Your task to perform on an android device: delete location history Image 0: 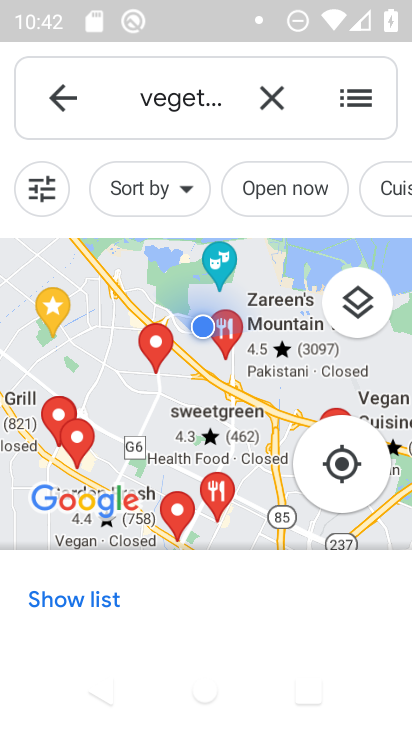
Step 0: press home button
Your task to perform on an android device: delete location history Image 1: 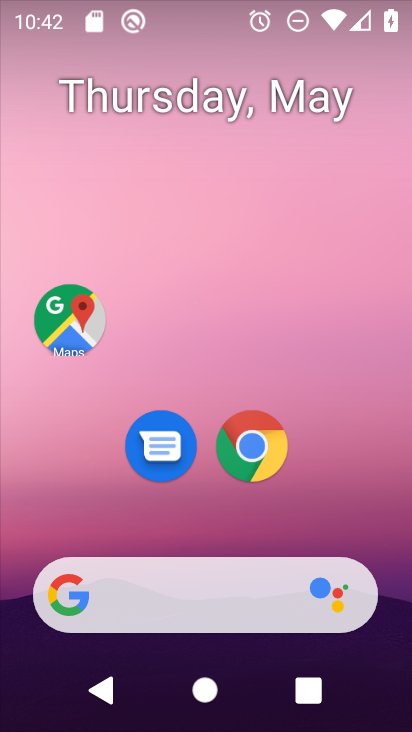
Step 1: drag from (271, 643) to (310, 162)
Your task to perform on an android device: delete location history Image 2: 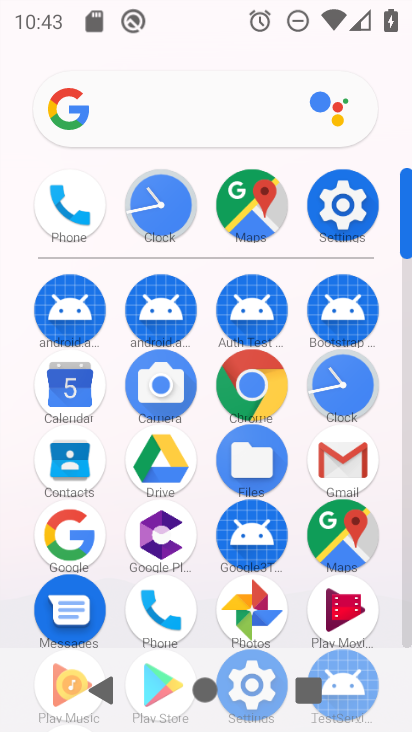
Step 2: click (351, 206)
Your task to perform on an android device: delete location history Image 3: 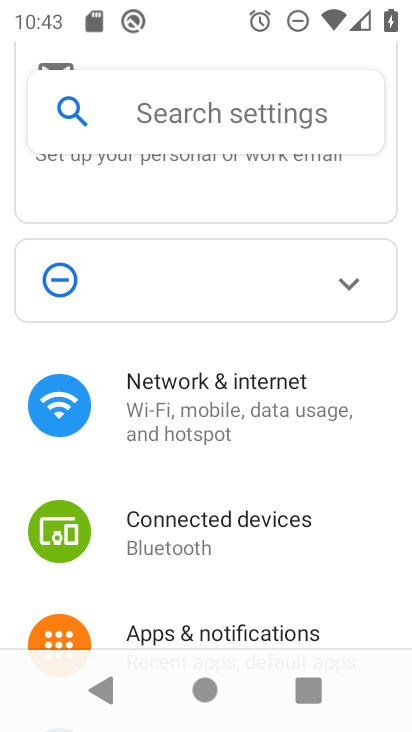
Step 3: click (206, 126)
Your task to perform on an android device: delete location history Image 4: 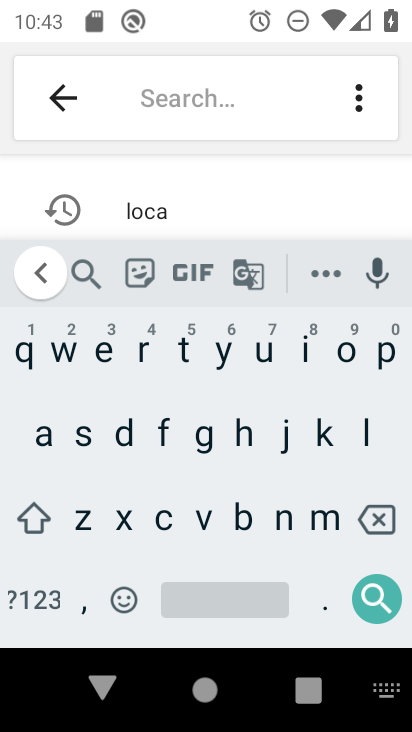
Step 4: click (203, 215)
Your task to perform on an android device: delete location history Image 5: 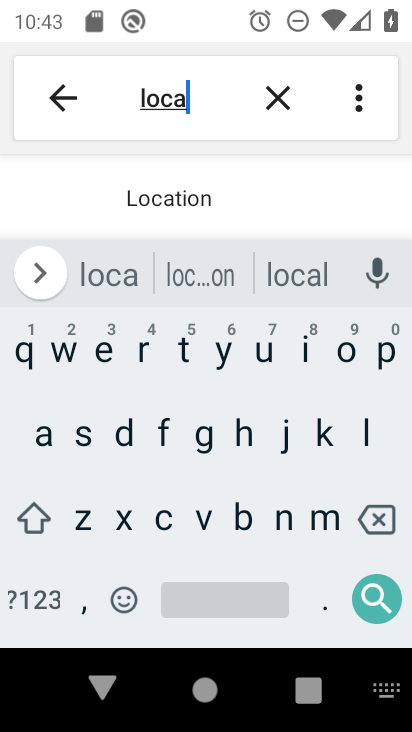
Step 5: press back button
Your task to perform on an android device: delete location history Image 6: 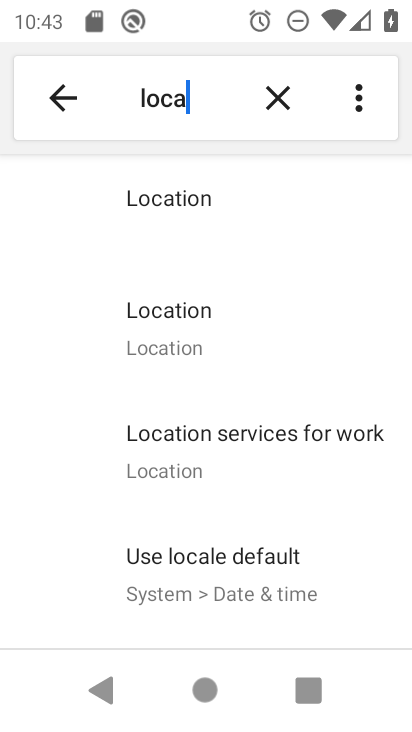
Step 6: click (202, 320)
Your task to perform on an android device: delete location history Image 7: 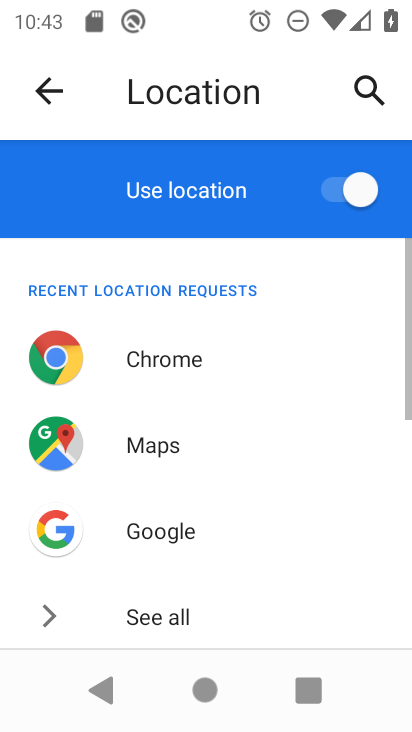
Step 7: drag from (200, 519) to (261, 273)
Your task to perform on an android device: delete location history Image 8: 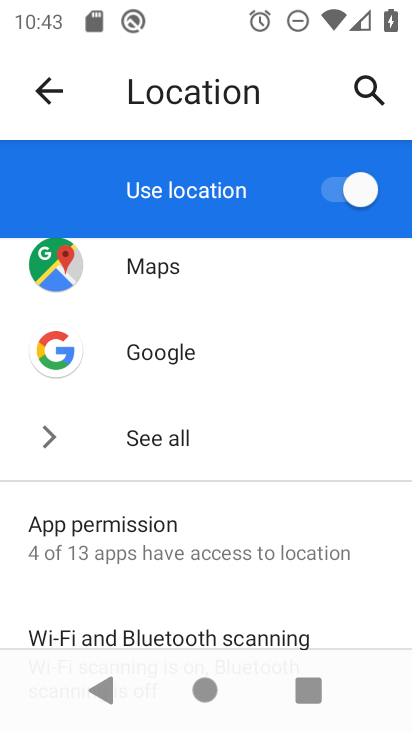
Step 8: drag from (204, 546) to (235, 380)
Your task to perform on an android device: delete location history Image 9: 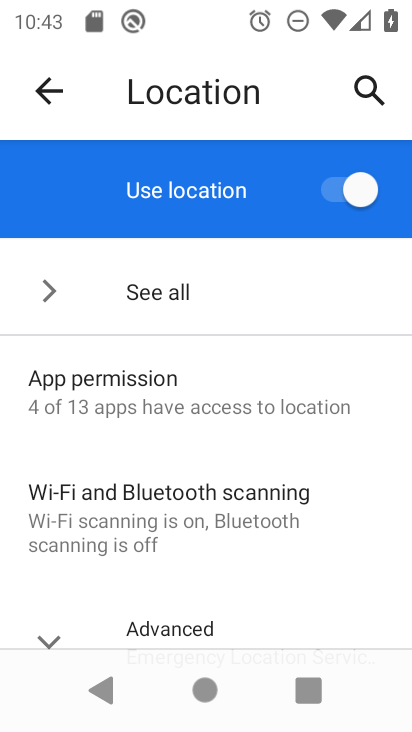
Step 9: drag from (168, 519) to (216, 351)
Your task to perform on an android device: delete location history Image 10: 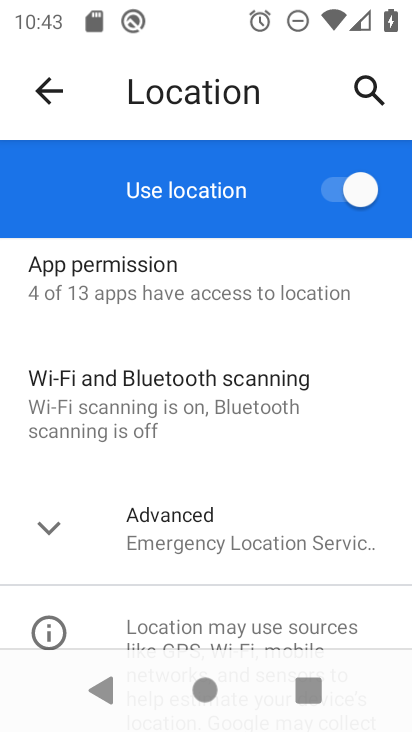
Step 10: click (63, 537)
Your task to perform on an android device: delete location history Image 11: 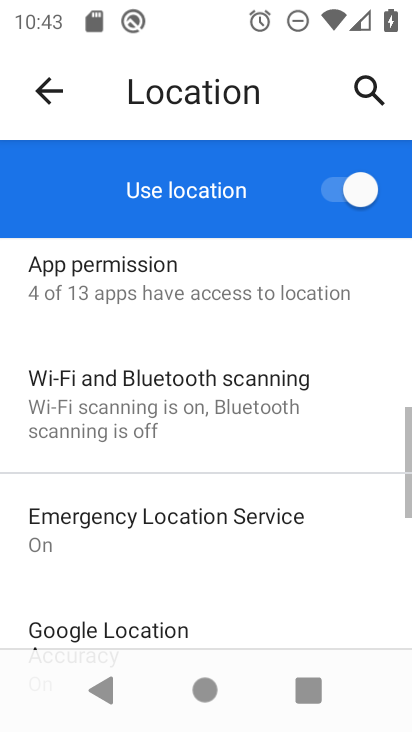
Step 11: drag from (158, 567) to (266, 273)
Your task to perform on an android device: delete location history Image 12: 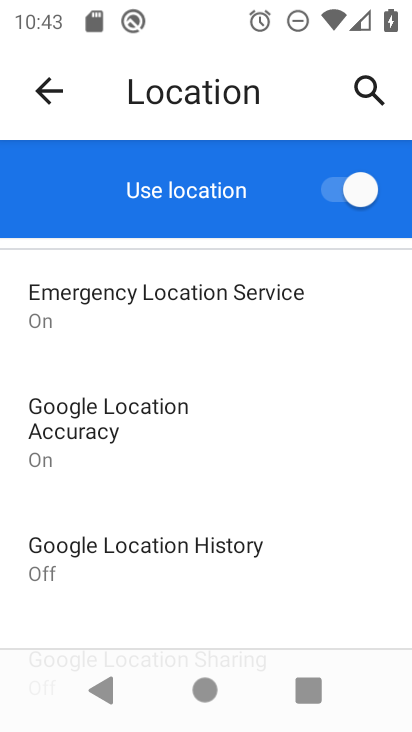
Step 12: click (168, 544)
Your task to perform on an android device: delete location history Image 13: 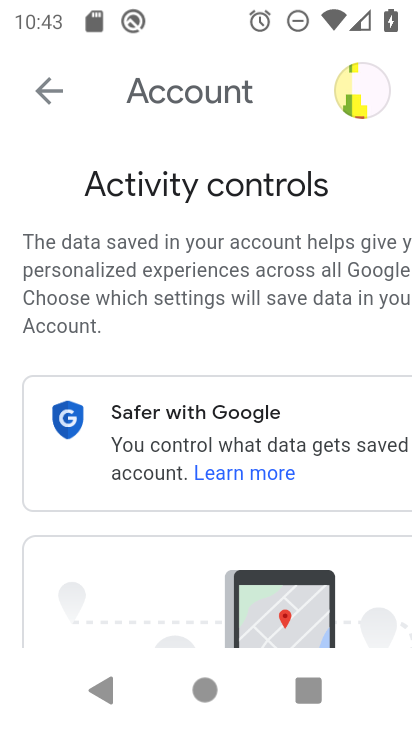
Step 13: task complete